Your task to perform on an android device: move an email to a new category in the gmail app Image 0: 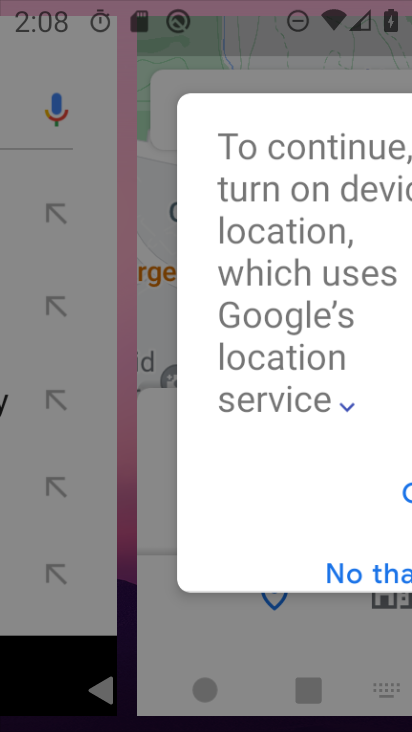
Step 0: press home button
Your task to perform on an android device: move an email to a new category in the gmail app Image 1: 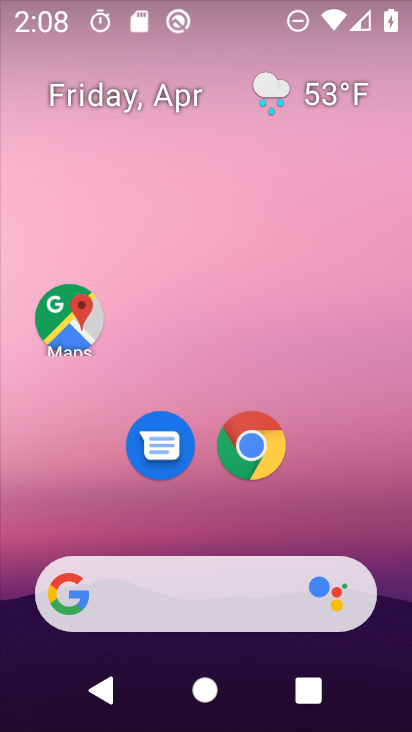
Step 1: drag from (358, 501) to (366, 105)
Your task to perform on an android device: move an email to a new category in the gmail app Image 2: 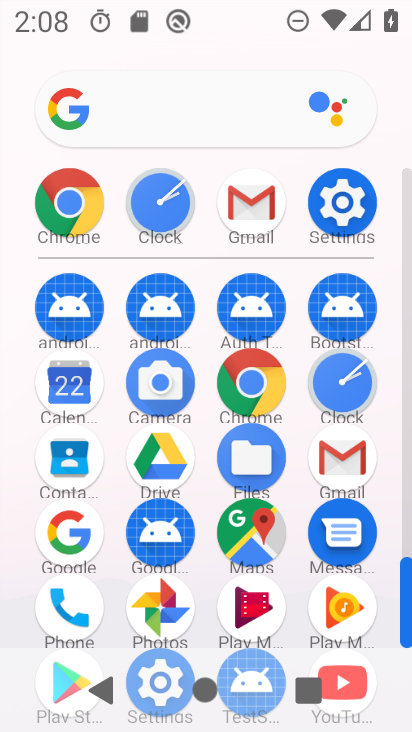
Step 2: click (351, 463)
Your task to perform on an android device: move an email to a new category in the gmail app Image 3: 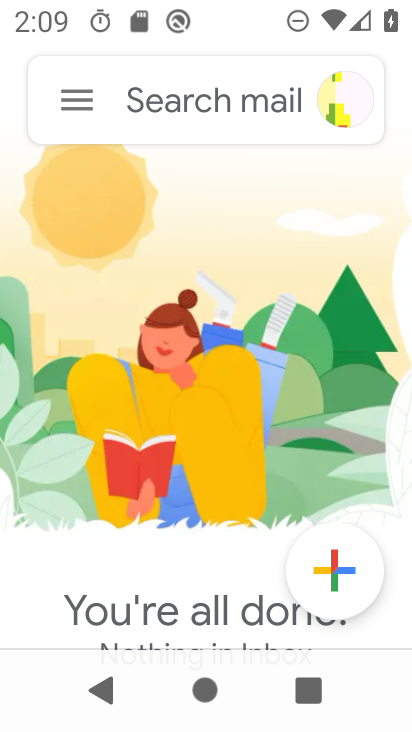
Step 3: click (61, 104)
Your task to perform on an android device: move an email to a new category in the gmail app Image 4: 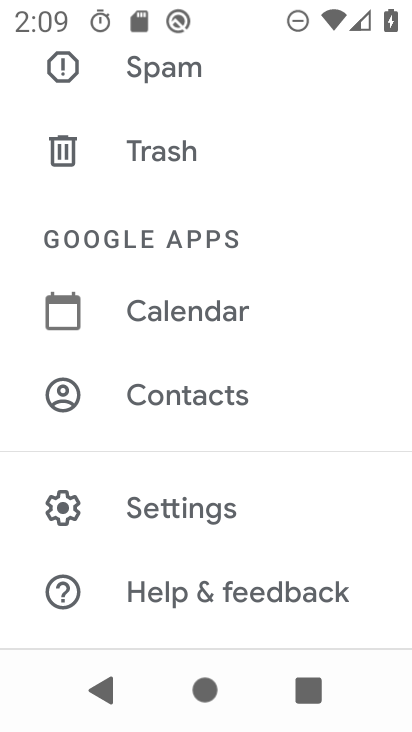
Step 4: drag from (333, 274) to (333, 466)
Your task to perform on an android device: move an email to a new category in the gmail app Image 5: 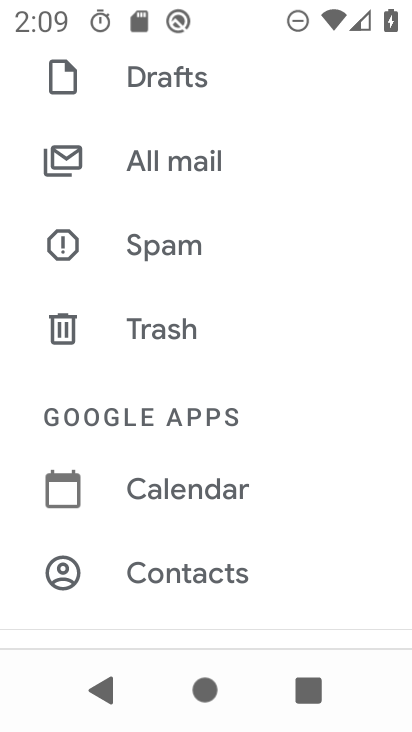
Step 5: drag from (329, 249) to (329, 433)
Your task to perform on an android device: move an email to a new category in the gmail app Image 6: 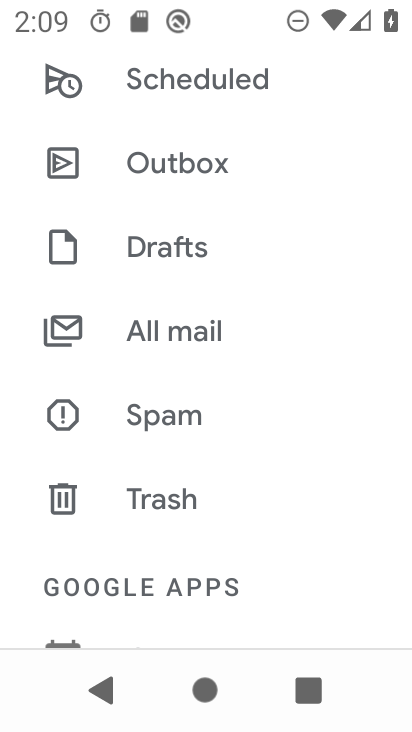
Step 6: drag from (319, 206) to (319, 406)
Your task to perform on an android device: move an email to a new category in the gmail app Image 7: 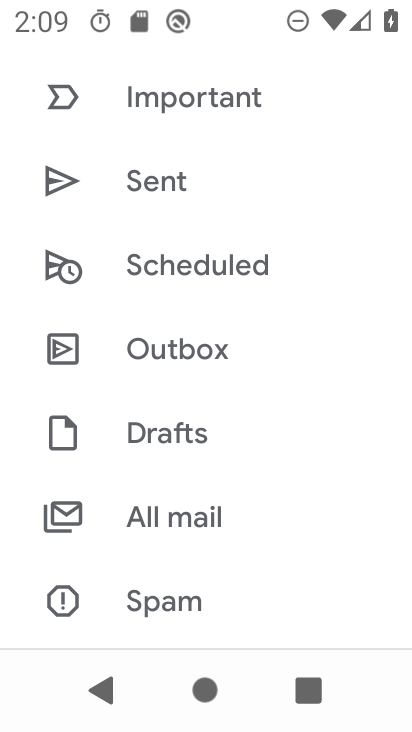
Step 7: drag from (332, 206) to (326, 382)
Your task to perform on an android device: move an email to a new category in the gmail app Image 8: 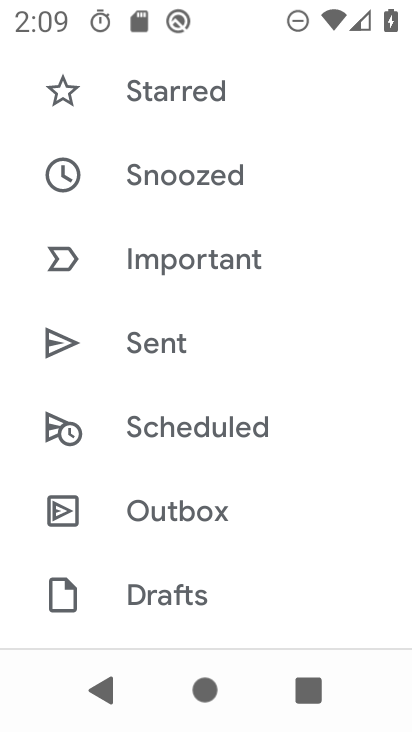
Step 8: drag from (327, 194) to (330, 391)
Your task to perform on an android device: move an email to a new category in the gmail app Image 9: 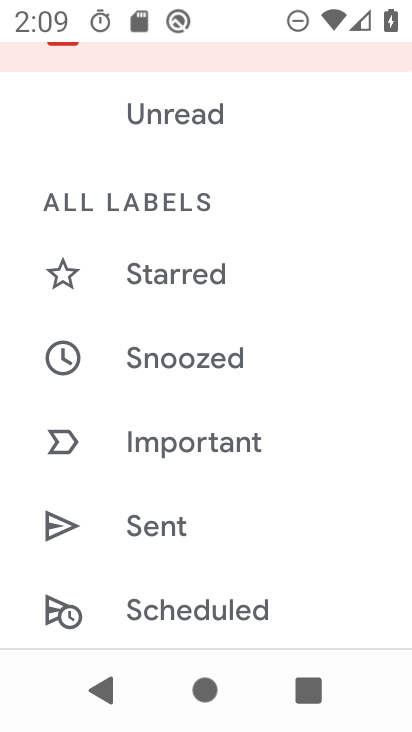
Step 9: drag from (308, 198) to (306, 350)
Your task to perform on an android device: move an email to a new category in the gmail app Image 10: 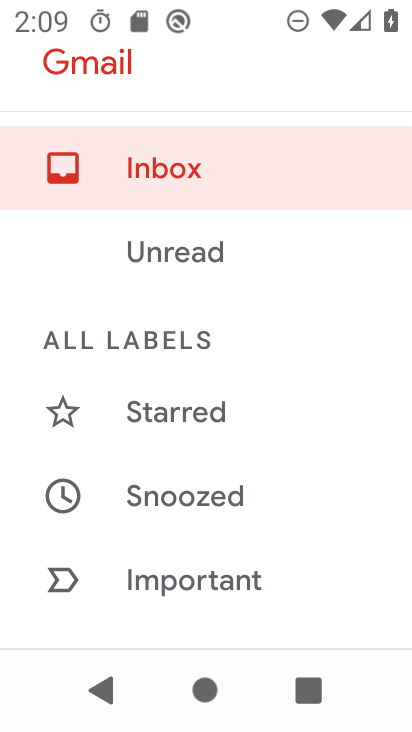
Step 10: click (202, 139)
Your task to perform on an android device: move an email to a new category in the gmail app Image 11: 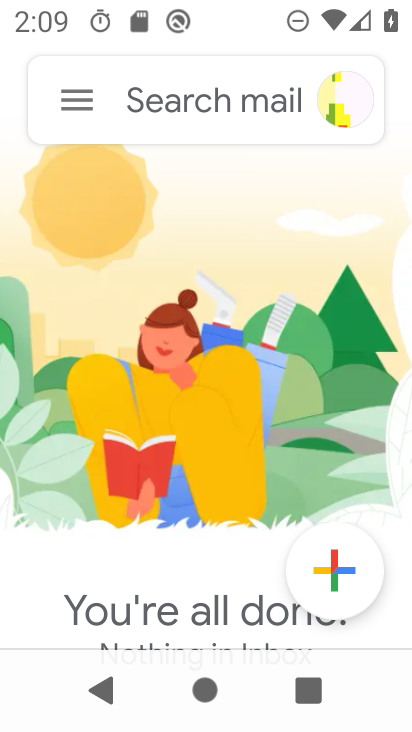
Step 11: task complete